Your task to perform on an android device: Turn on the flashlight Image 0: 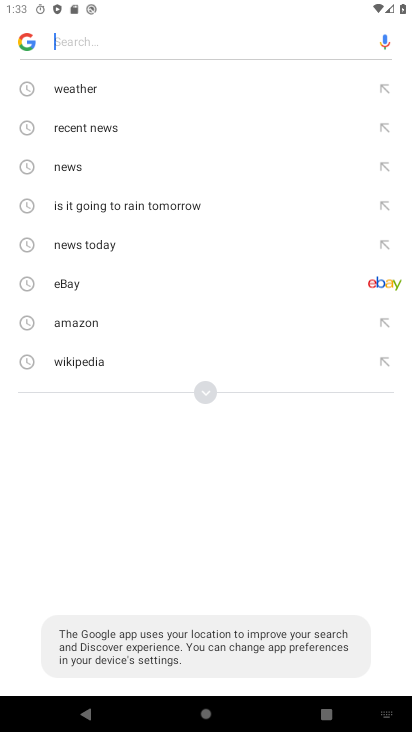
Step 0: press home button
Your task to perform on an android device: Turn on the flashlight Image 1: 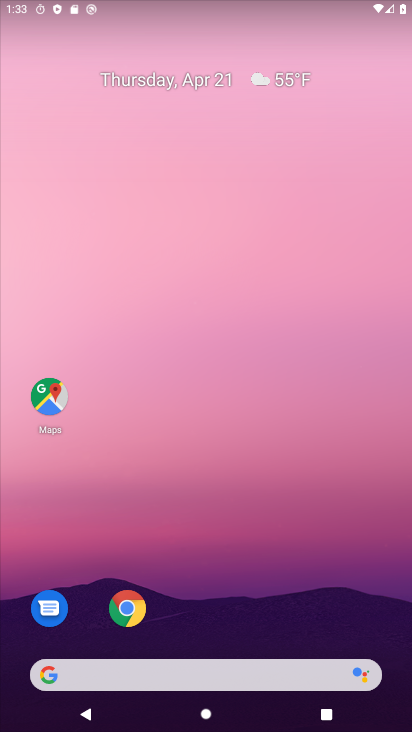
Step 1: drag from (220, 455) to (123, 66)
Your task to perform on an android device: Turn on the flashlight Image 2: 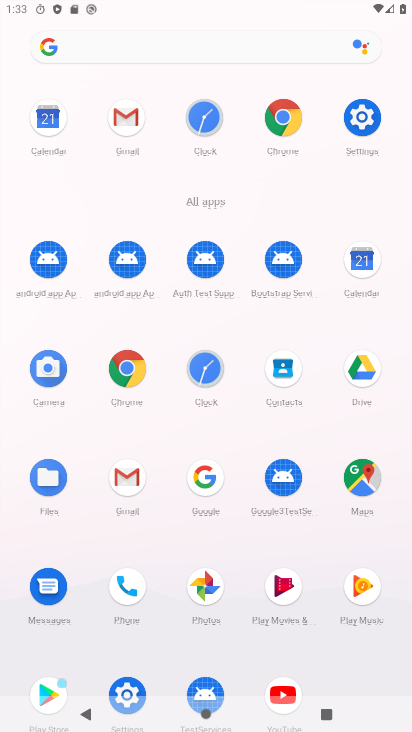
Step 2: click (365, 129)
Your task to perform on an android device: Turn on the flashlight Image 3: 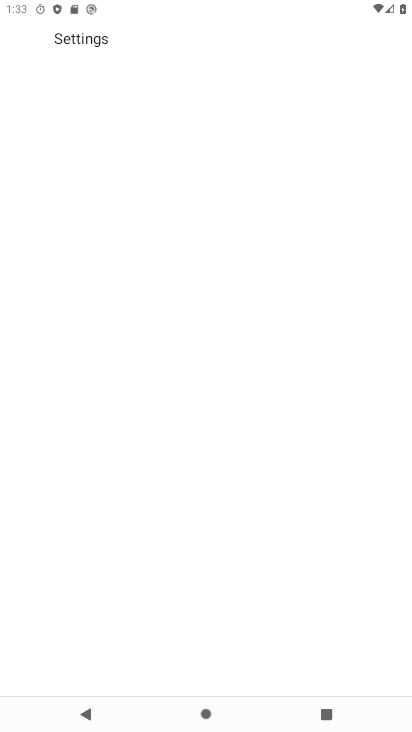
Step 3: click (365, 118)
Your task to perform on an android device: Turn on the flashlight Image 4: 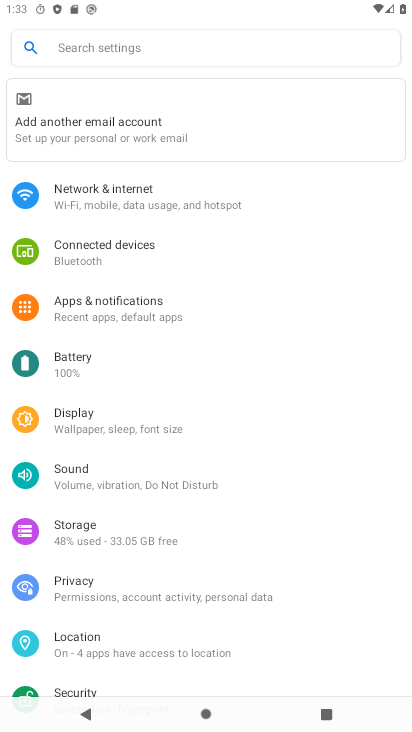
Step 4: click (154, 45)
Your task to perform on an android device: Turn on the flashlight Image 5: 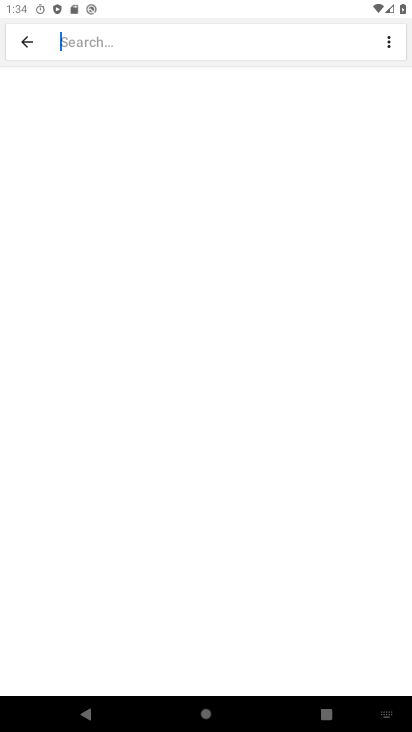
Step 5: type "flashlight"
Your task to perform on an android device: Turn on the flashlight Image 6: 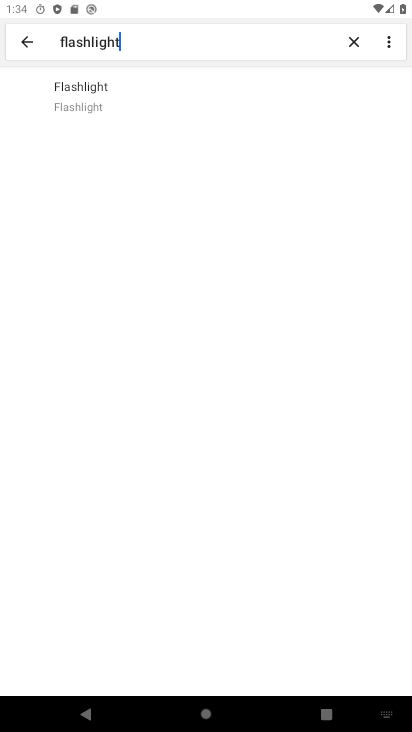
Step 6: click (91, 101)
Your task to perform on an android device: Turn on the flashlight Image 7: 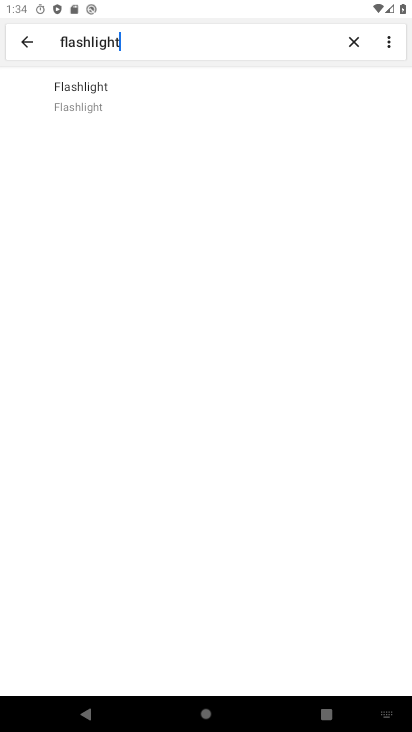
Step 7: click (91, 101)
Your task to perform on an android device: Turn on the flashlight Image 8: 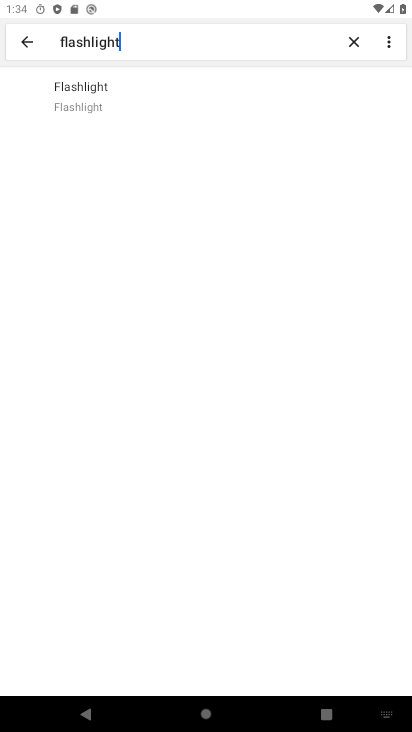
Step 8: task complete